Your task to perform on an android device: Go to notification settings Image 0: 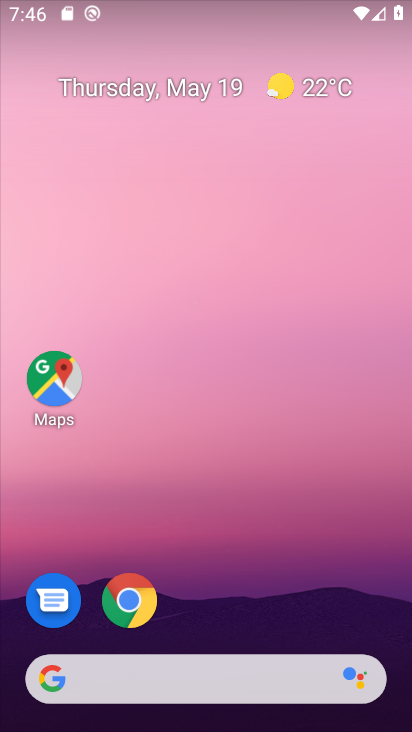
Step 0: drag from (246, 589) to (270, 118)
Your task to perform on an android device: Go to notification settings Image 1: 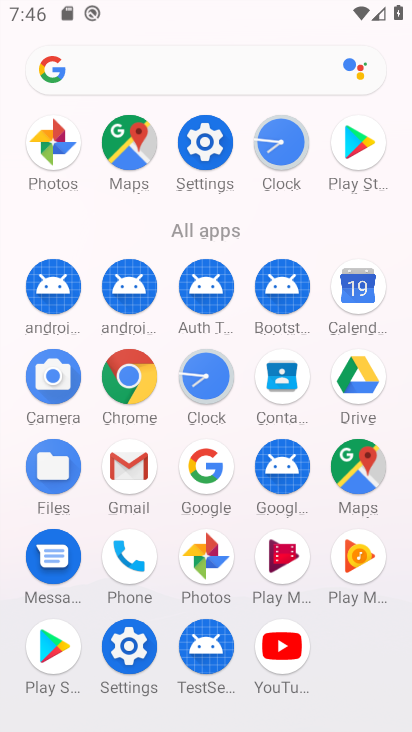
Step 1: click (206, 144)
Your task to perform on an android device: Go to notification settings Image 2: 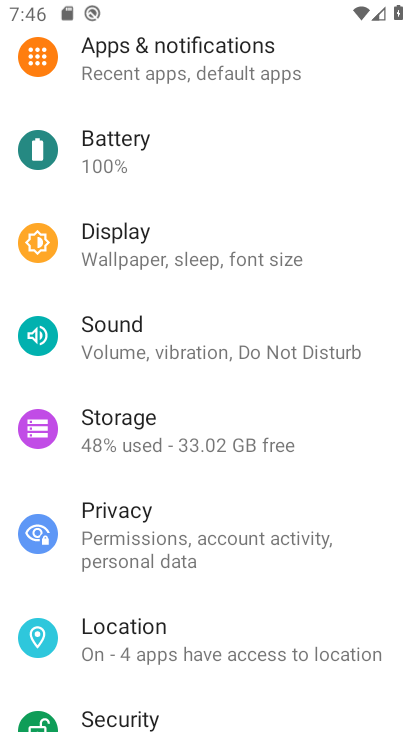
Step 2: click (148, 59)
Your task to perform on an android device: Go to notification settings Image 3: 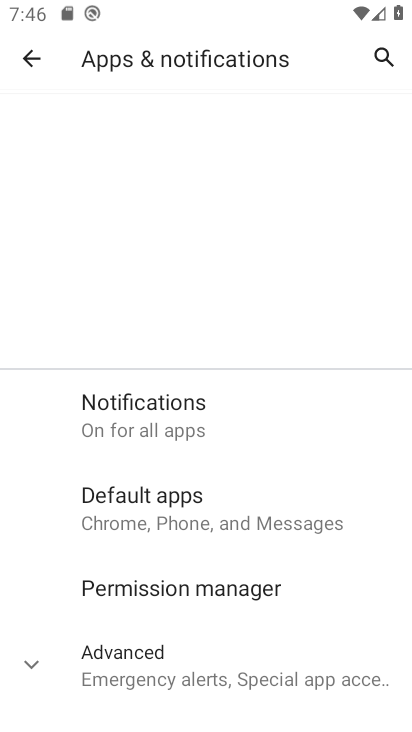
Step 3: click (215, 57)
Your task to perform on an android device: Go to notification settings Image 4: 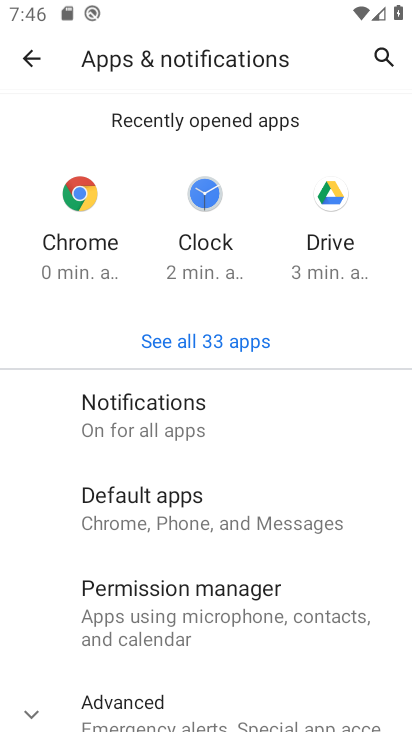
Step 4: click (164, 414)
Your task to perform on an android device: Go to notification settings Image 5: 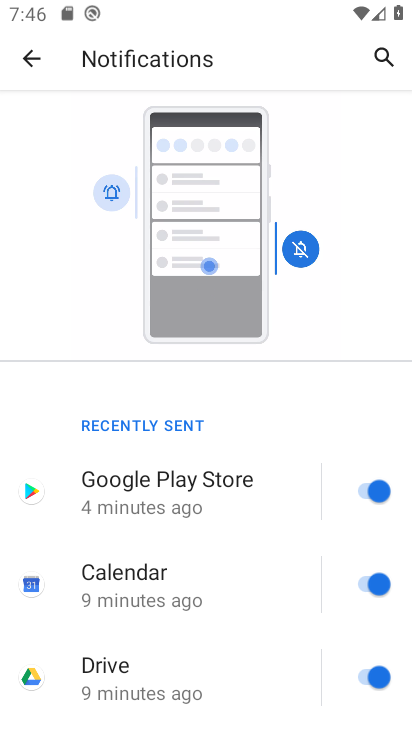
Step 5: task complete